Your task to perform on an android device: Go to Yahoo.com Image 0: 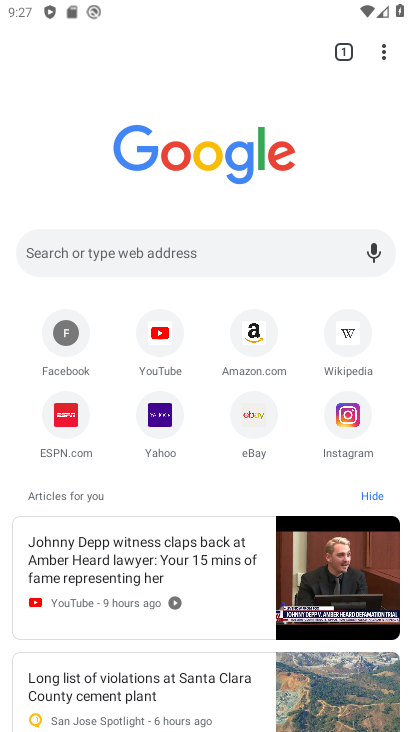
Step 0: press home button
Your task to perform on an android device: Go to Yahoo.com Image 1: 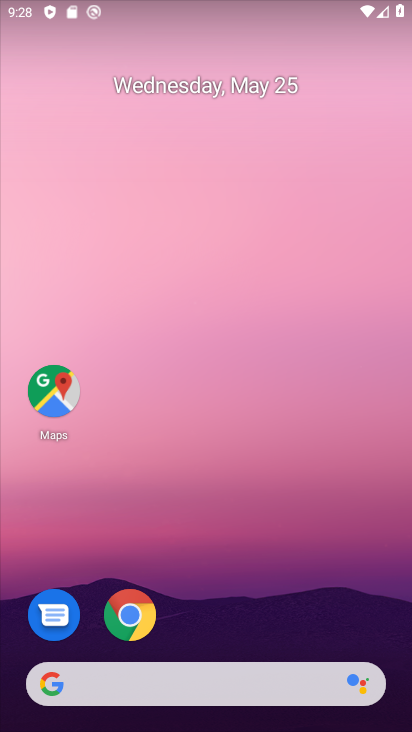
Step 1: click (237, 681)
Your task to perform on an android device: Go to Yahoo.com Image 2: 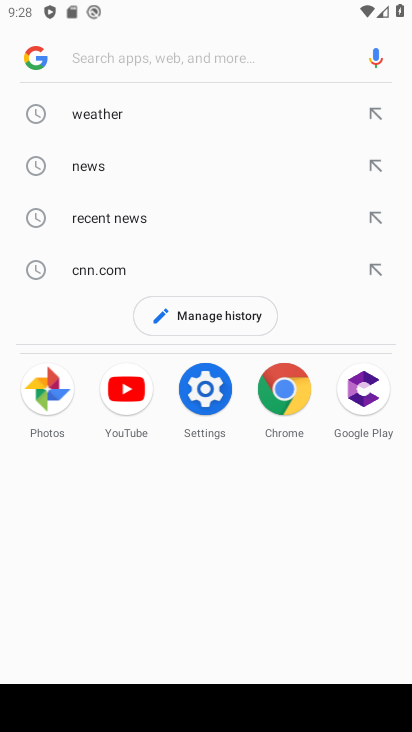
Step 2: type "yahoo.com"
Your task to perform on an android device: Go to Yahoo.com Image 3: 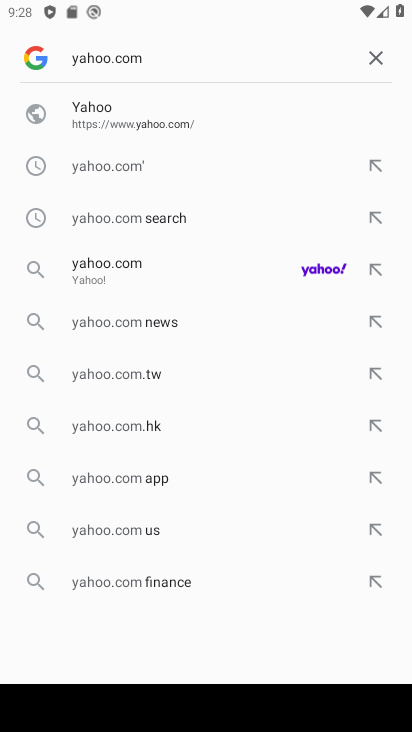
Step 3: click (150, 268)
Your task to perform on an android device: Go to Yahoo.com Image 4: 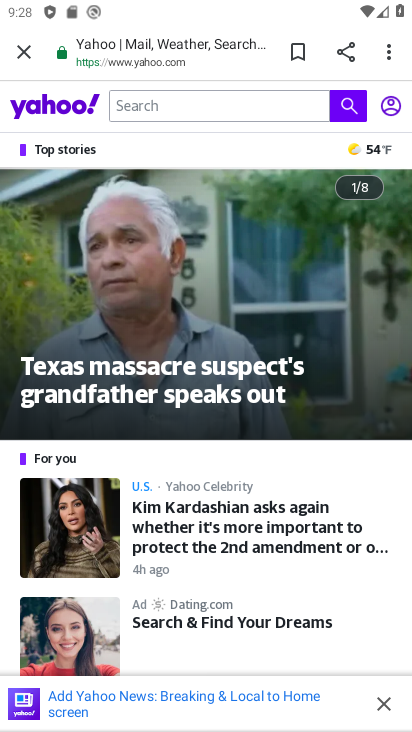
Step 4: task complete